Your task to perform on an android device: Open Maps and search for coffee Image 0: 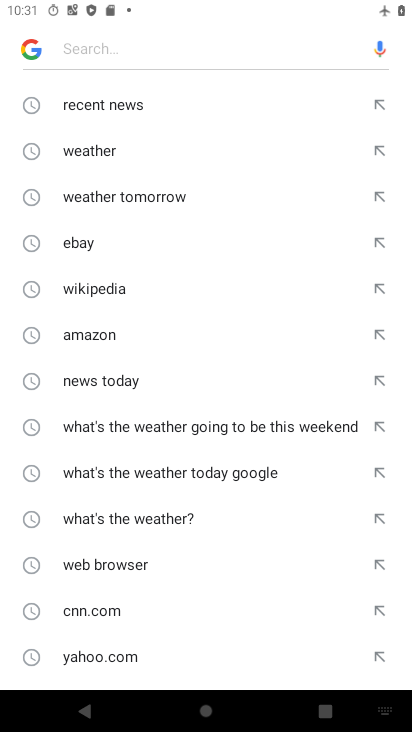
Step 0: press home button
Your task to perform on an android device: Open Maps and search for coffee Image 1: 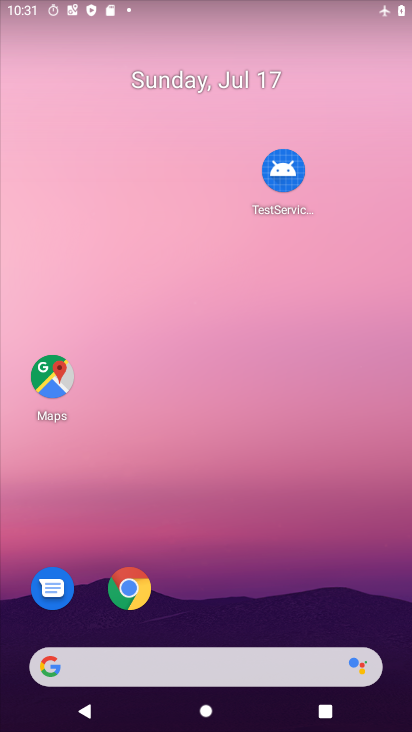
Step 1: drag from (170, 510) to (225, 9)
Your task to perform on an android device: Open Maps and search for coffee Image 2: 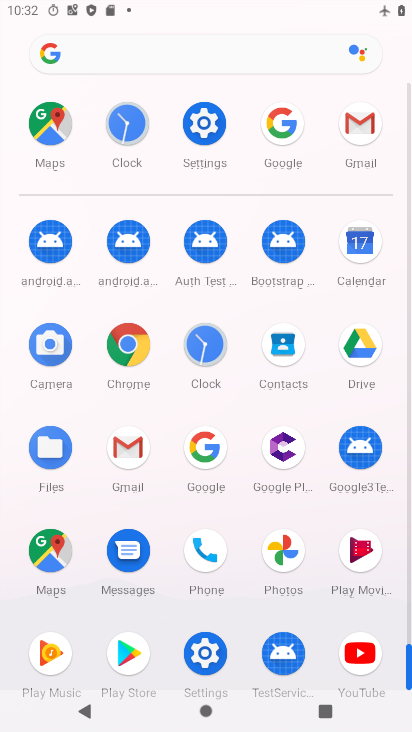
Step 2: click (54, 550)
Your task to perform on an android device: Open Maps and search for coffee Image 3: 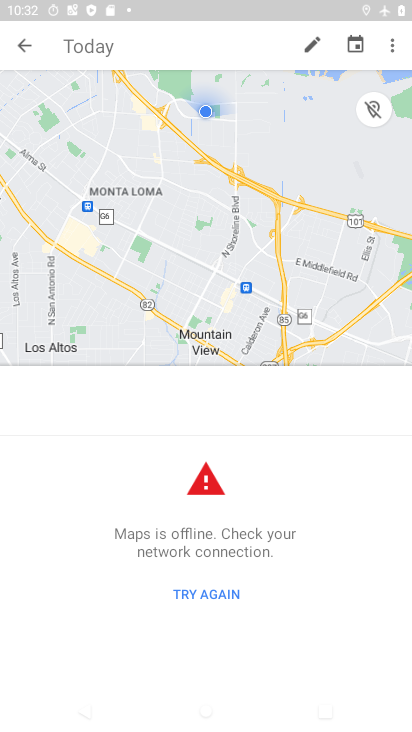
Step 3: click (25, 47)
Your task to perform on an android device: Open Maps and search for coffee Image 4: 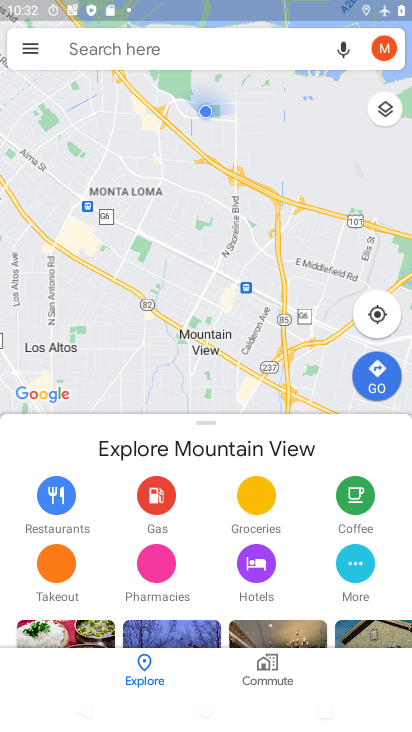
Step 4: click (146, 59)
Your task to perform on an android device: Open Maps and search for coffee Image 5: 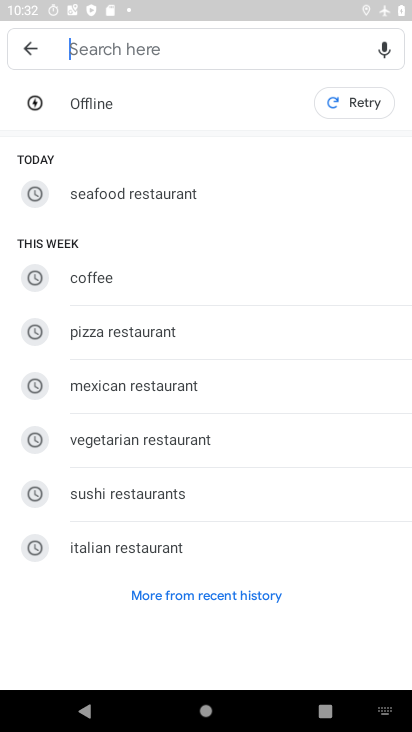
Step 5: click (130, 290)
Your task to perform on an android device: Open Maps and search for coffee Image 6: 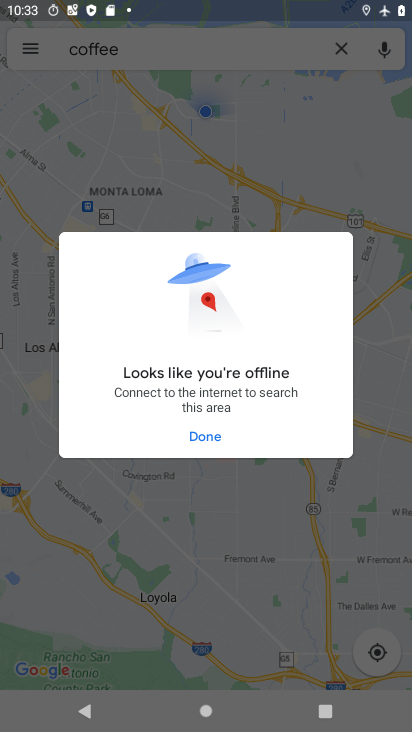
Step 6: click (196, 431)
Your task to perform on an android device: Open Maps and search for coffee Image 7: 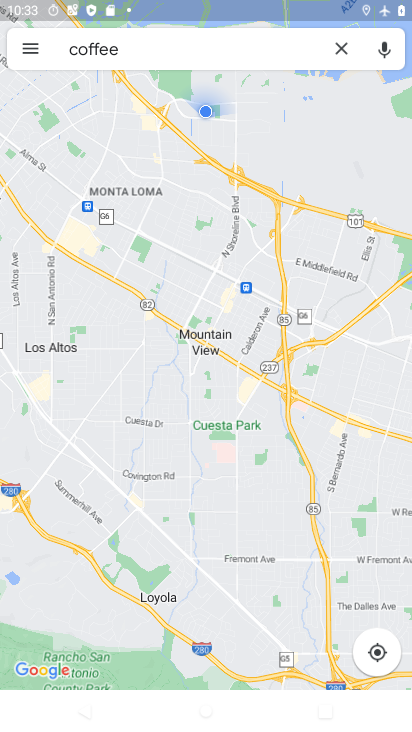
Step 7: task complete